Your task to perform on an android device: change the clock style Image 0: 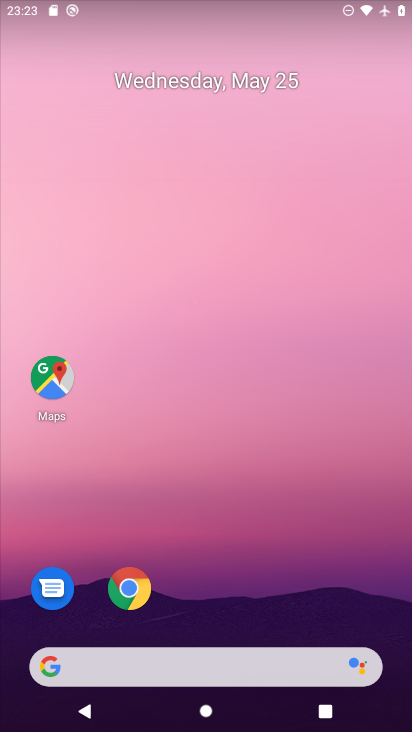
Step 0: drag from (296, 619) to (315, 146)
Your task to perform on an android device: change the clock style Image 1: 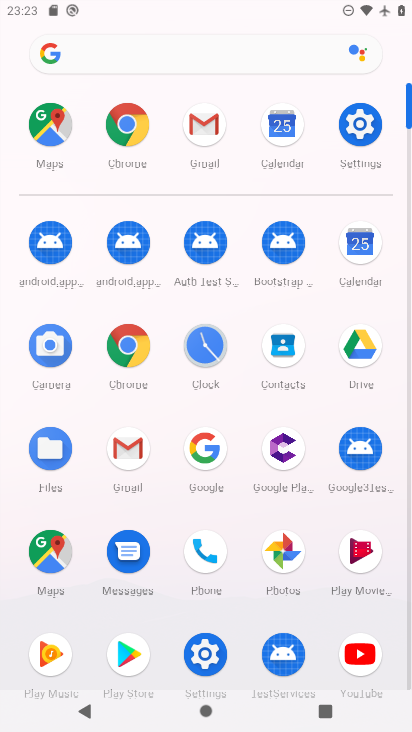
Step 1: click (205, 335)
Your task to perform on an android device: change the clock style Image 2: 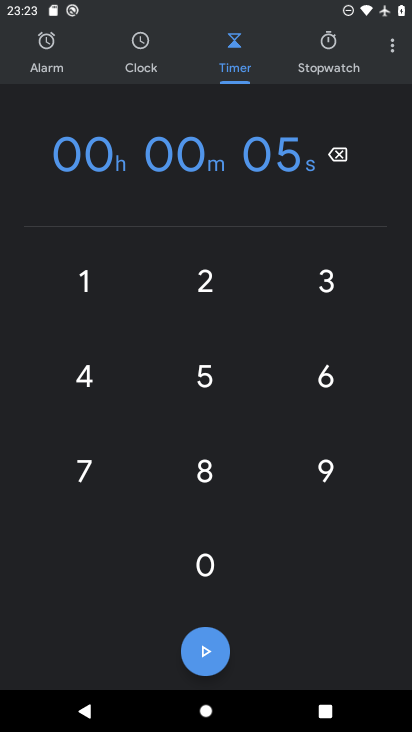
Step 2: click (396, 43)
Your task to perform on an android device: change the clock style Image 3: 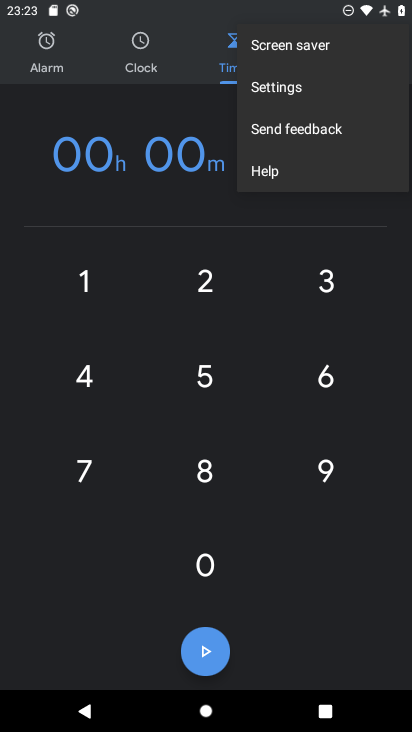
Step 3: click (292, 99)
Your task to perform on an android device: change the clock style Image 4: 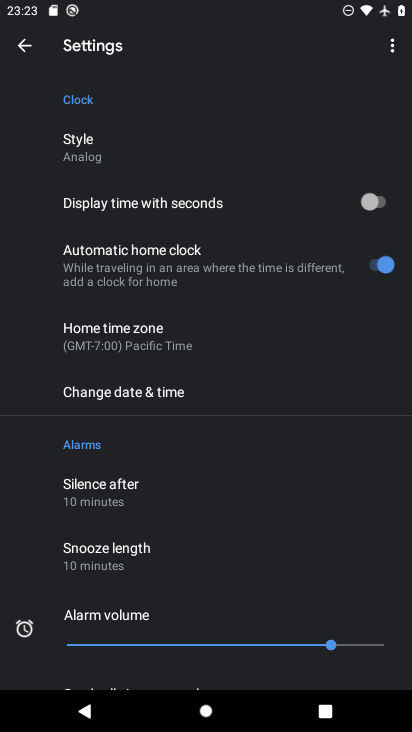
Step 4: click (112, 141)
Your task to perform on an android device: change the clock style Image 5: 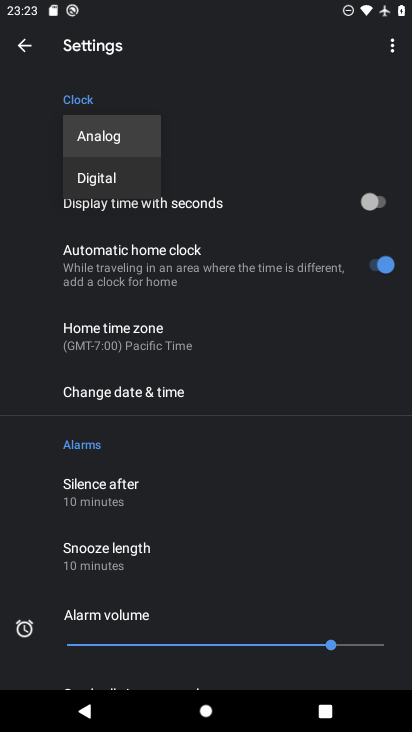
Step 5: click (115, 179)
Your task to perform on an android device: change the clock style Image 6: 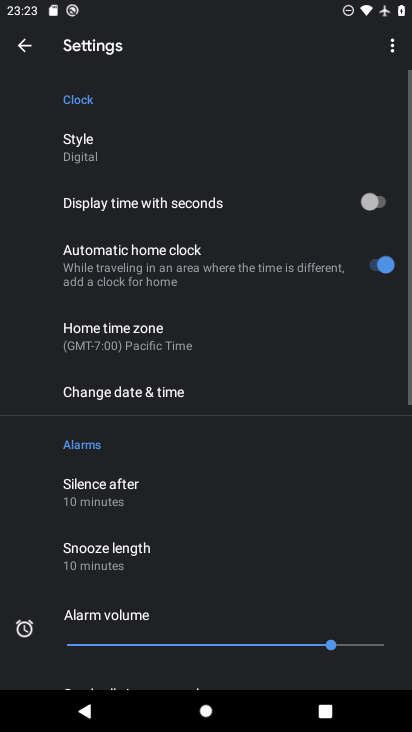
Step 6: task complete